Your task to perform on an android device: toggle sleep mode Image 0: 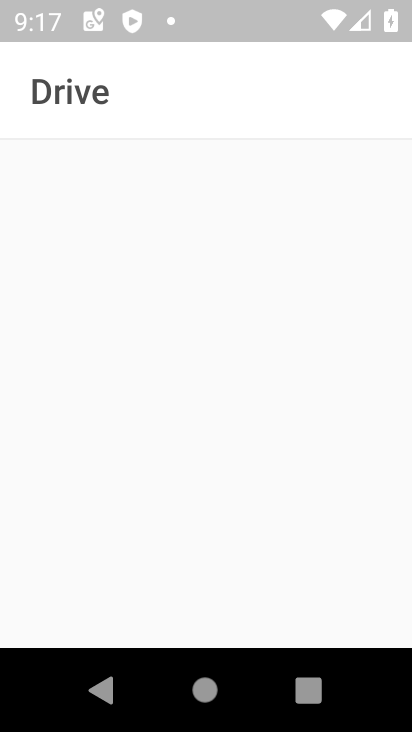
Step 0: press home button
Your task to perform on an android device: toggle sleep mode Image 1: 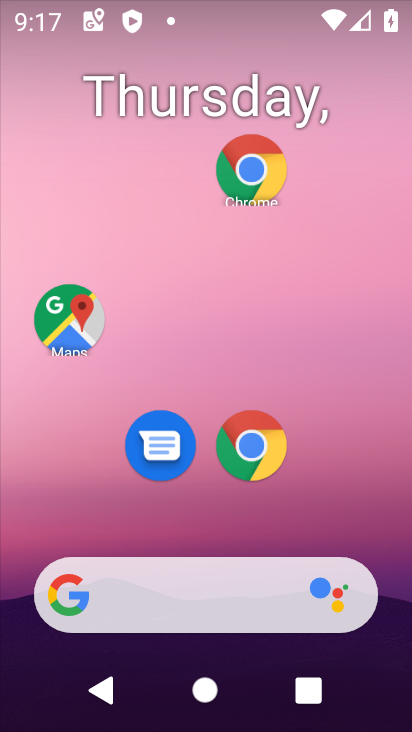
Step 1: drag from (228, 529) to (222, 6)
Your task to perform on an android device: toggle sleep mode Image 2: 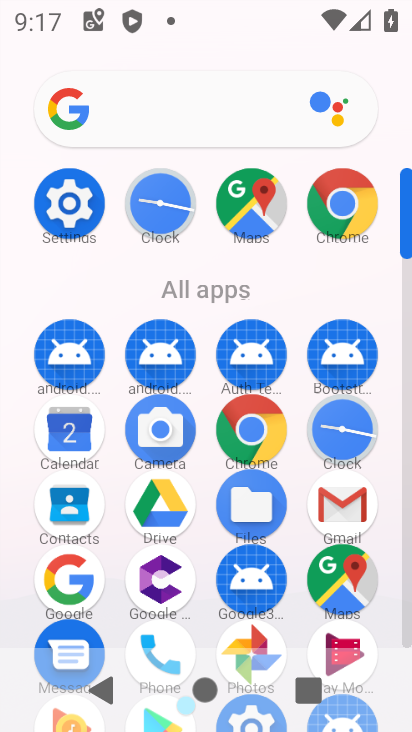
Step 2: click (44, 214)
Your task to perform on an android device: toggle sleep mode Image 3: 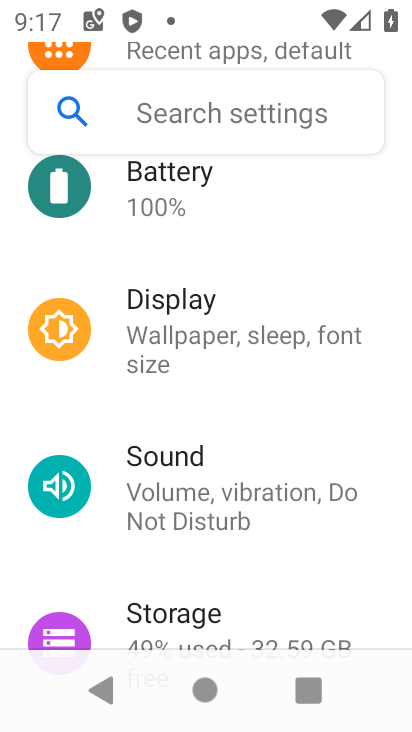
Step 3: task complete